Your task to perform on an android device: add a contact in the contacts app Image 0: 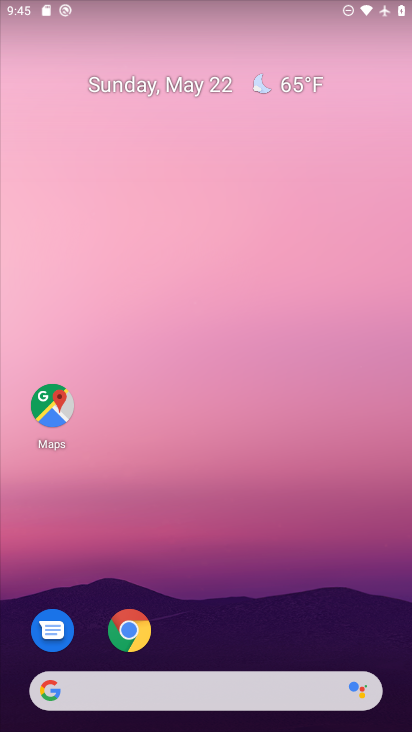
Step 0: press home button
Your task to perform on an android device: add a contact in the contacts app Image 1: 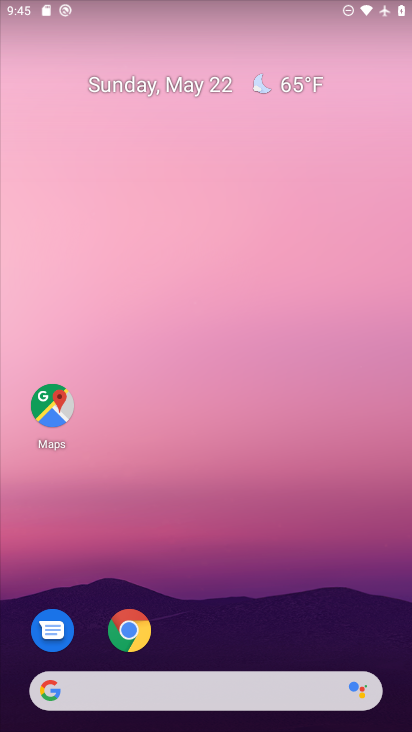
Step 1: drag from (230, 620) to (399, 66)
Your task to perform on an android device: add a contact in the contacts app Image 2: 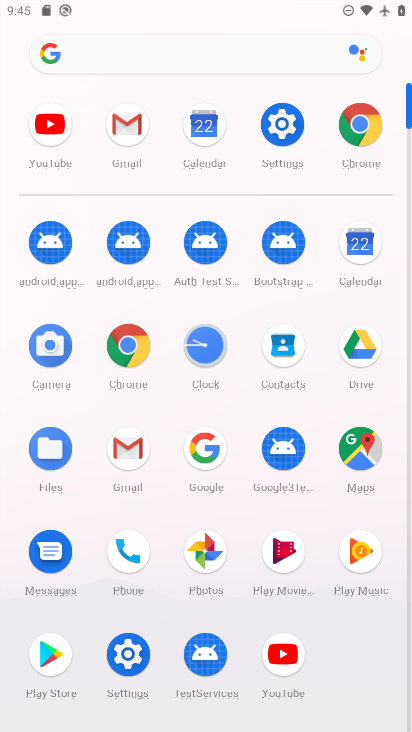
Step 2: click (280, 349)
Your task to perform on an android device: add a contact in the contacts app Image 3: 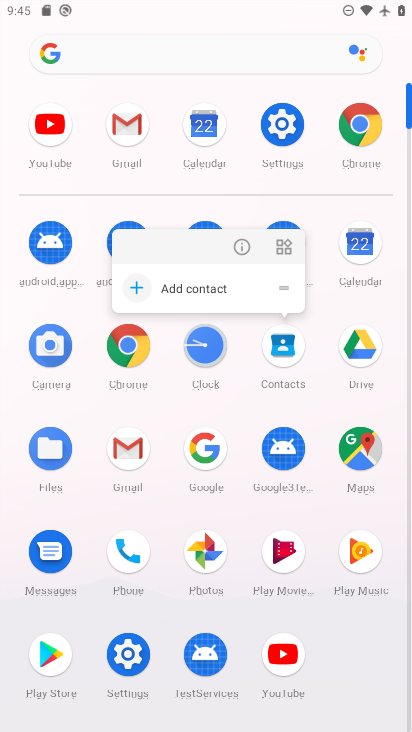
Step 3: click (280, 349)
Your task to perform on an android device: add a contact in the contacts app Image 4: 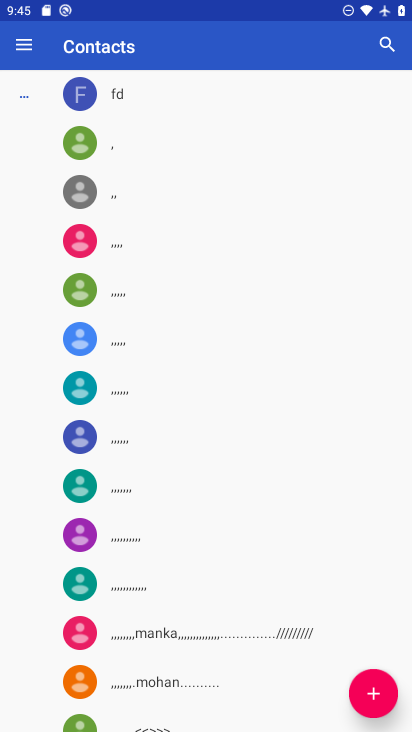
Step 4: click (379, 696)
Your task to perform on an android device: add a contact in the contacts app Image 5: 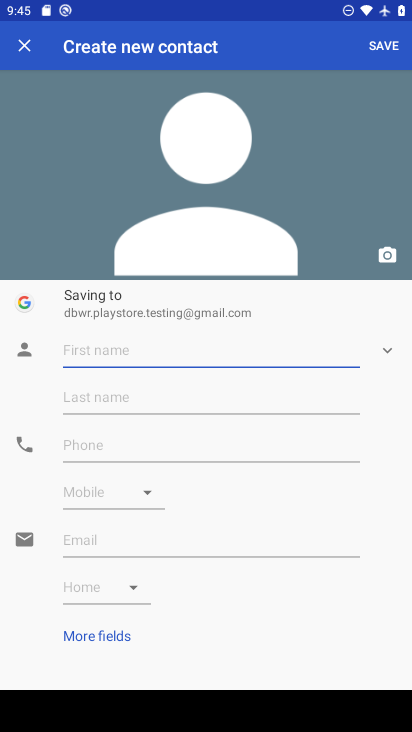
Step 5: type "ttrgddsghhh"
Your task to perform on an android device: add a contact in the contacts app Image 6: 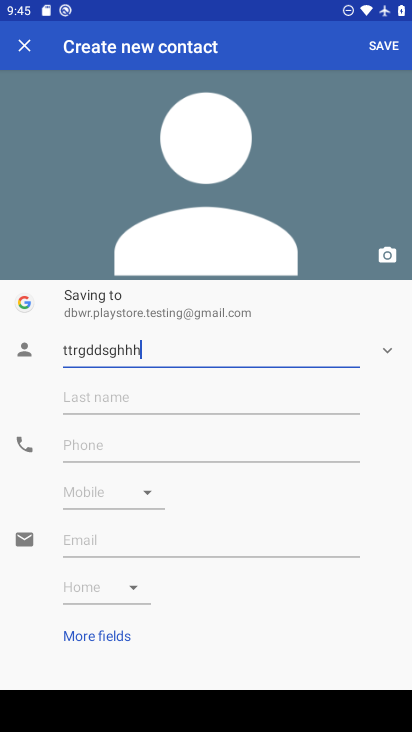
Step 6: click (103, 448)
Your task to perform on an android device: add a contact in the contacts app Image 7: 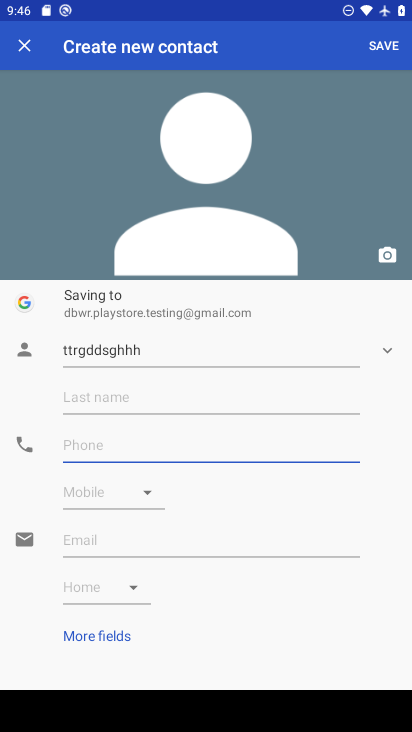
Step 7: type "65548655"
Your task to perform on an android device: add a contact in the contacts app Image 8: 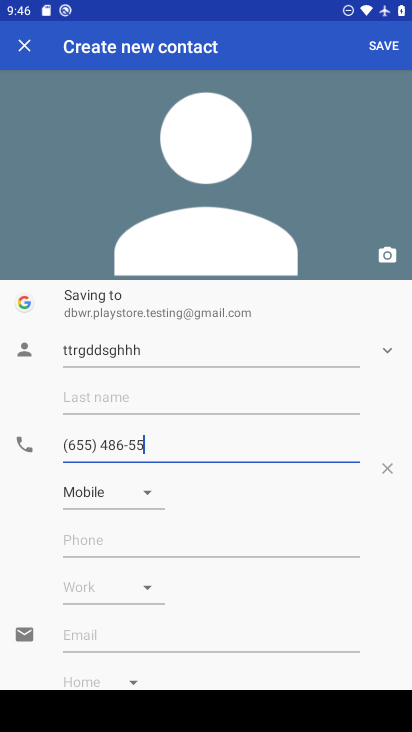
Step 8: click (379, 44)
Your task to perform on an android device: add a contact in the contacts app Image 9: 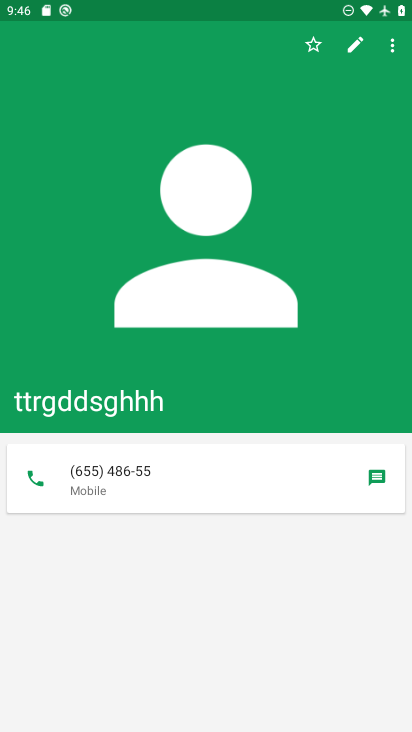
Step 9: task complete